Your task to perform on an android device: snooze an email in the gmail app Image 0: 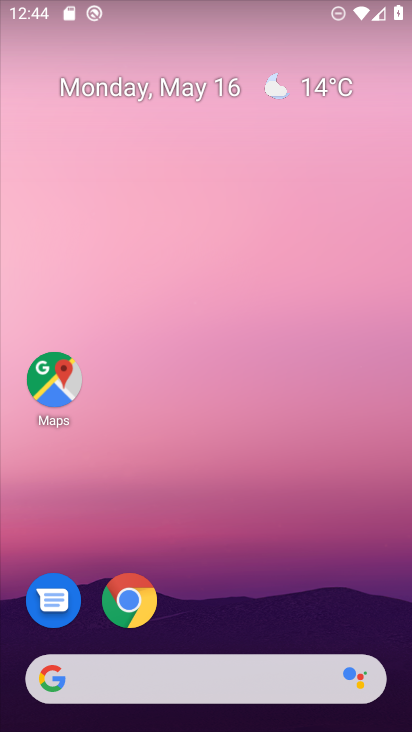
Step 0: drag from (225, 635) to (236, 572)
Your task to perform on an android device: snooze an email in the gmail app Image 1: 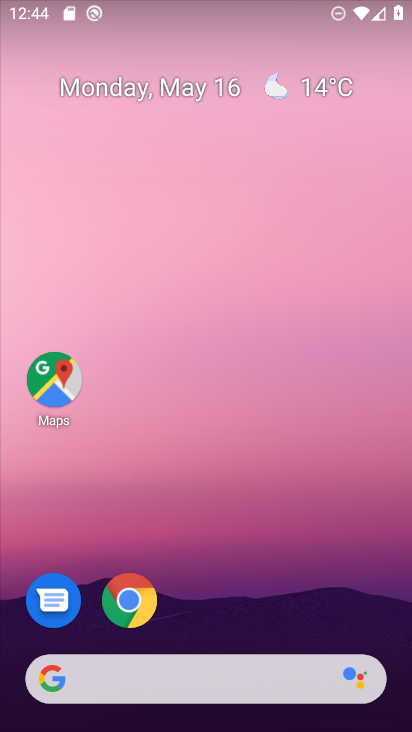
Step 1: drag from (261, 255) to (268, 64)
Your task to perform on an android device: snooze an email in the gmail app Image 2: 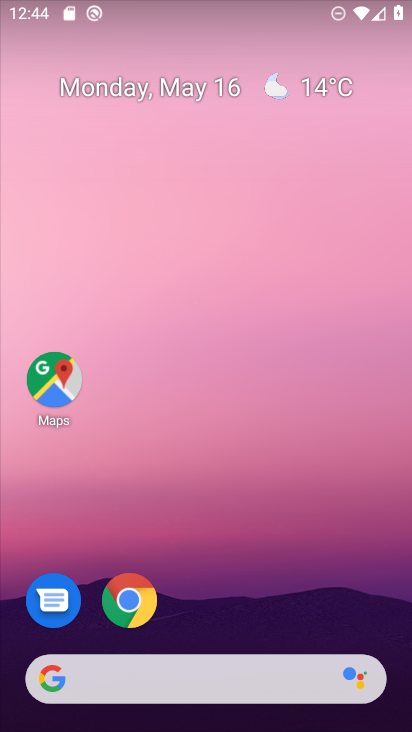
Step 2: drag from (219, 626) to (241, 33)
Your task to perform on an android device: snooze an email in the gmail app Image 3: 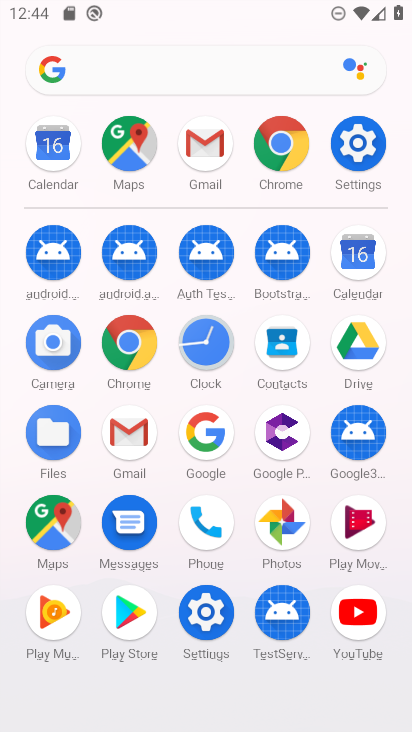
Step 3: click (127, 425)
Your task to perform on an android device: snooze an email in the gmail app Image 4: 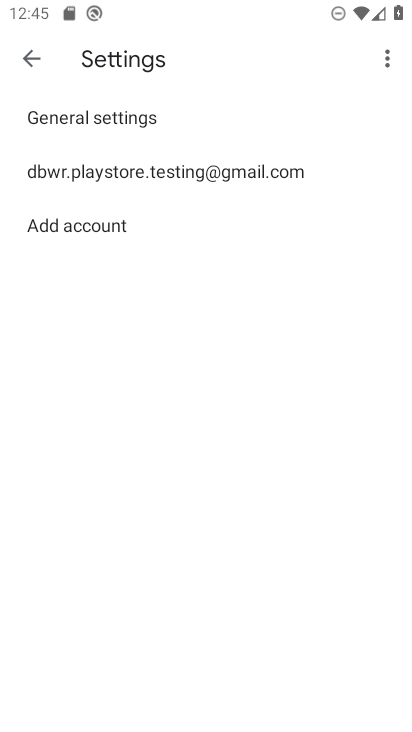
Step 4: task complete